Your task to perform on an android device: remove spam from my inbox in the gmail app Image 0: 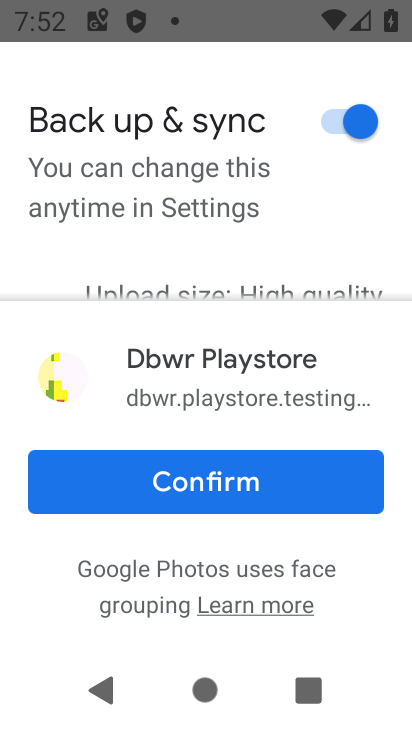
Step 0: press home button
Your task to perform on an android device: remove spam from my inbox in the gmail app Image 1: 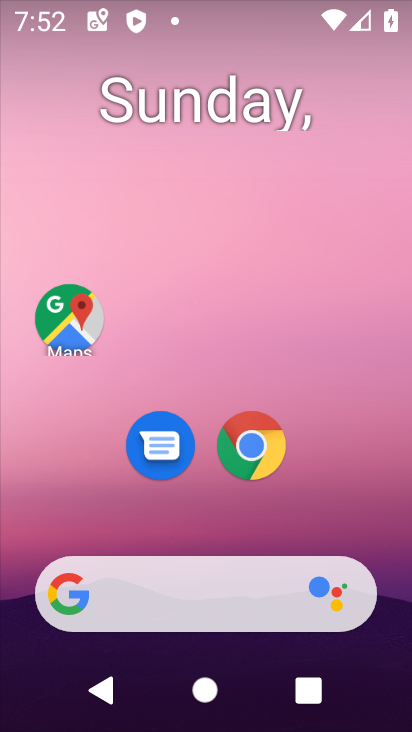
Step 1: drag from (202, 640) to (247, 249)
Your task to perform on an android device: remove spam from my inbox in the gmail app Image 2: 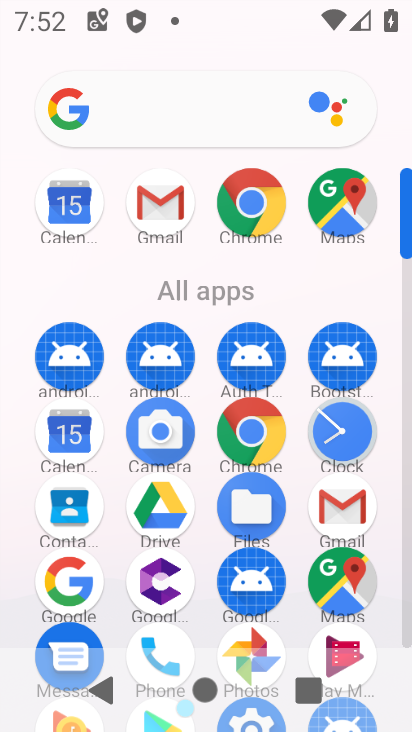
Step 2: click (351, 508)
Your task to perform on an android device: remove spam from my inbox in the gmail app Image 3: 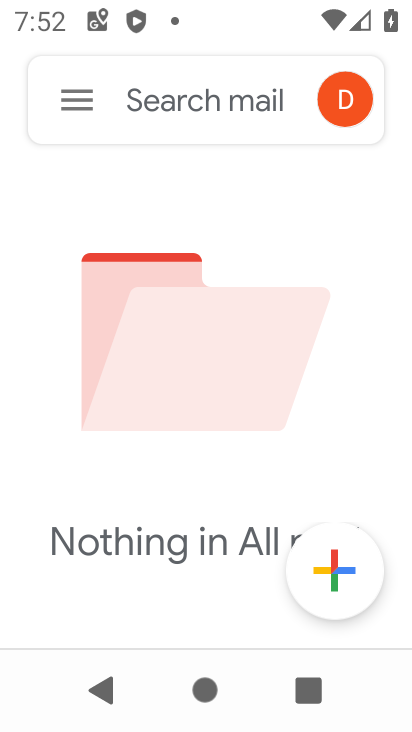
Step 3: click (91, 113)
Your task to perform on an android device: remove spam from my inbox in the gmail app Image 4: 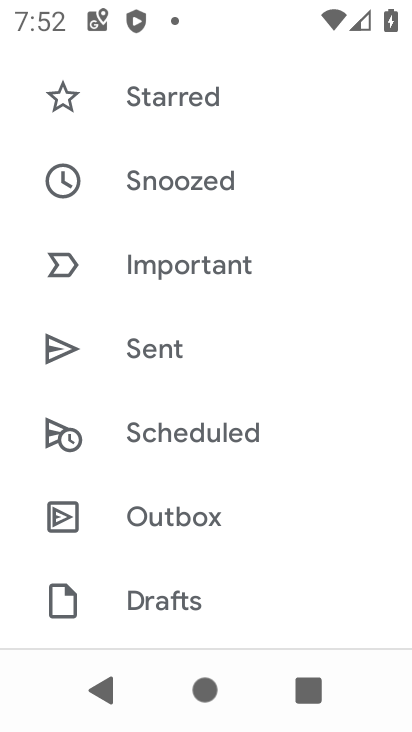
Step 4: drag from (128, 365) to (144, 111)
Your task to perform on an android device: remove spam from my inbox in the gmail app Image 5: 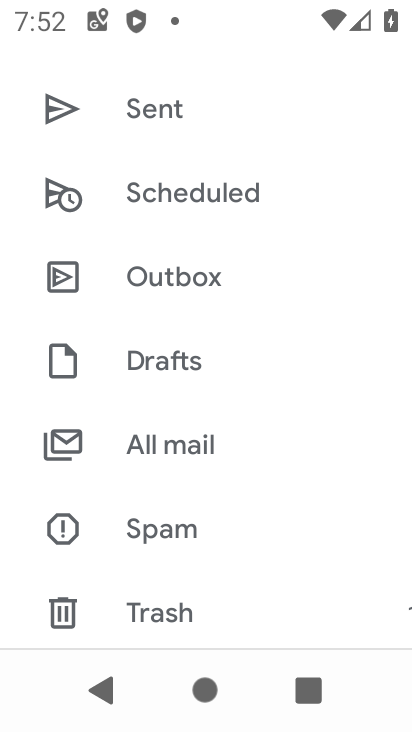
Step 5: drag from (128, 337) to (131, 272)
Your task to perform on an android device: remove spam from my inbox in the gmail app Image 6: 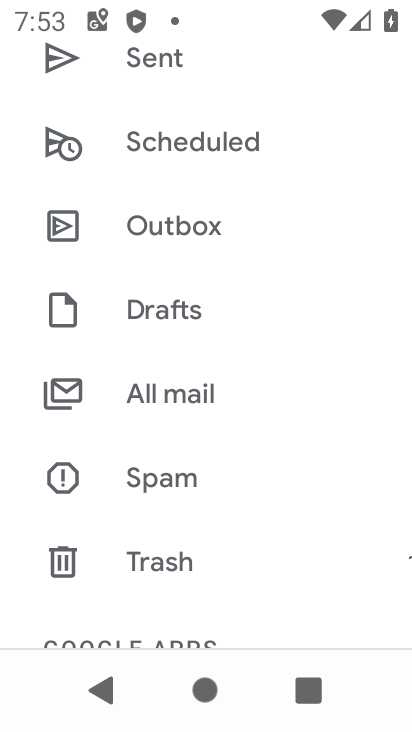
Step 6: click (167, 480)
Your task to perform on an android device: remove spam from my inbox in the gmail app Image 7: 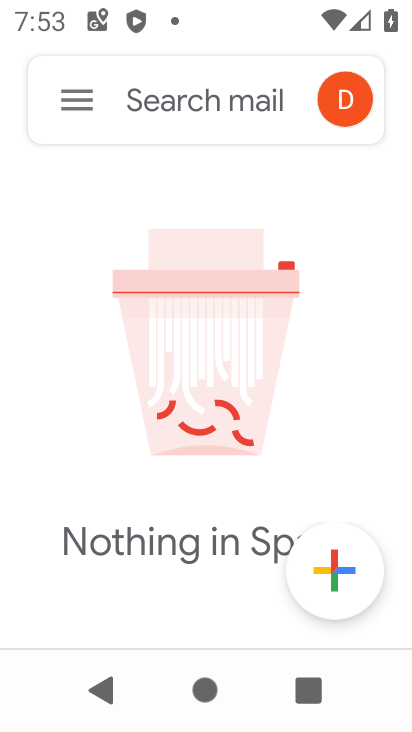
Step 7: task complete